Your task to perform on an android device: Go to Maps Image 0: 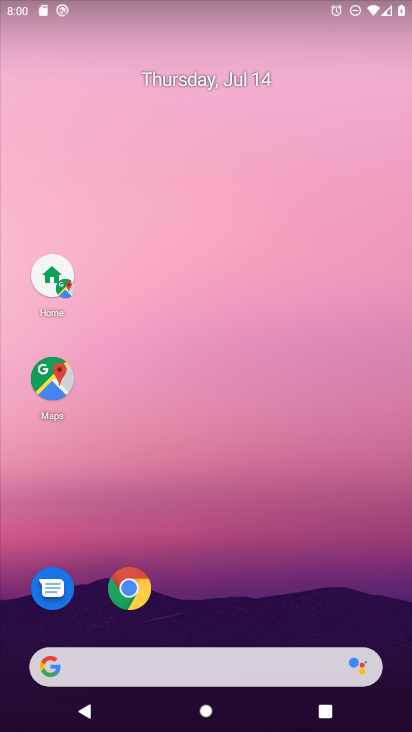
Step 0: click (68, 363)
Your task to perform on an android device: Go to Maps Image 1: 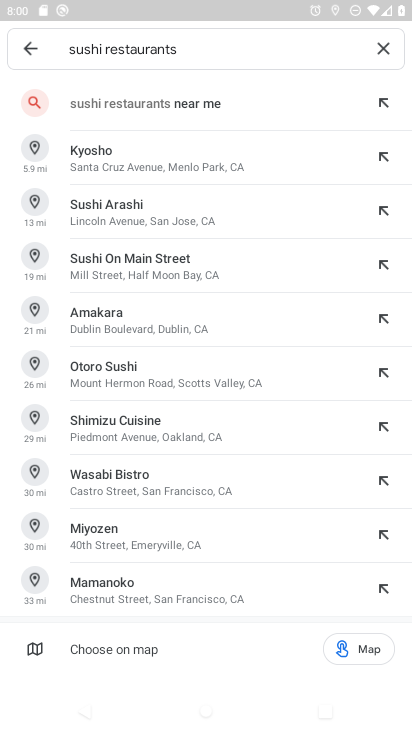
Step 1: click (34, 40)
Your task to perform on an android device: Go to Maps Image 2: 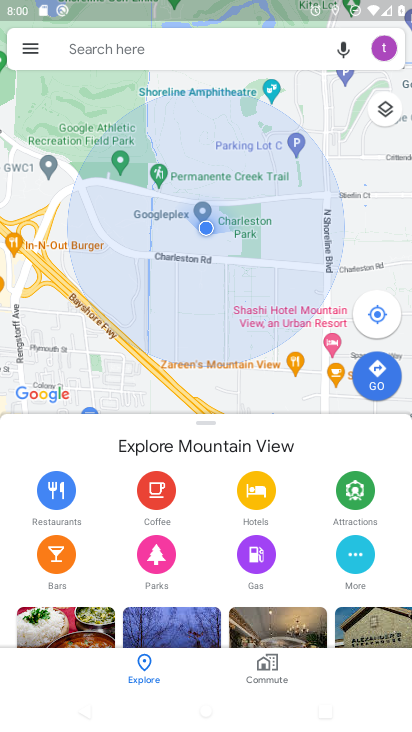
Step 2: task complete